Your task to perform on an android device: add a contact Image 0: 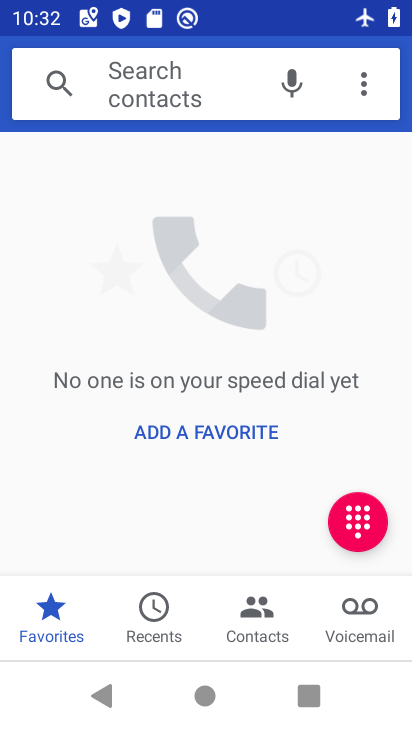
Step 0: press home button
Your task to perform on an android device: add a contact Image 1: 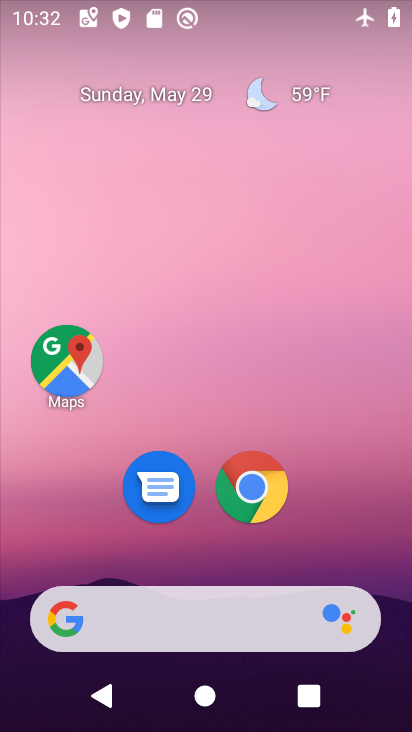
Step 1: drag from (384, 709) to (329, 217)
Your task to perform on an android device: add a contact Image 2: 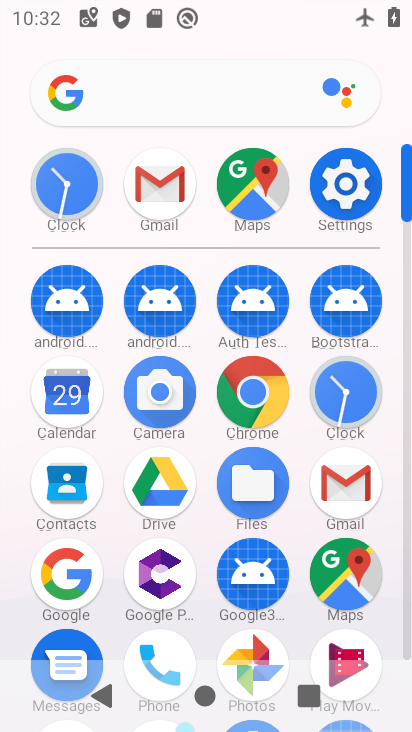
Step 2: click (60, 478)
Your task to perform on an android device: add a contact Image 3: 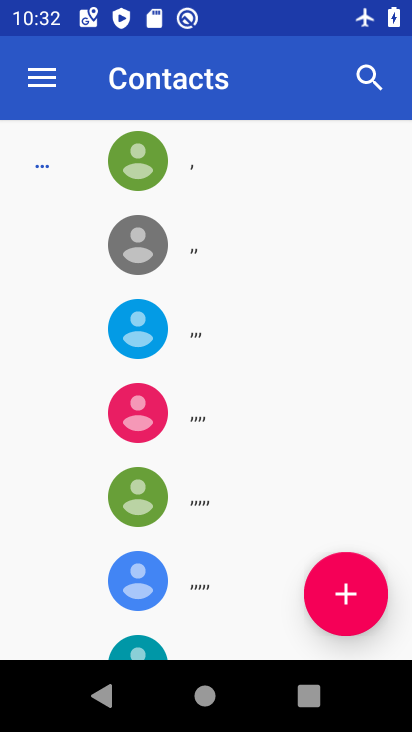
Step 3: click (335, 597)
Your task to perform on an android device: add a contact Image 4: 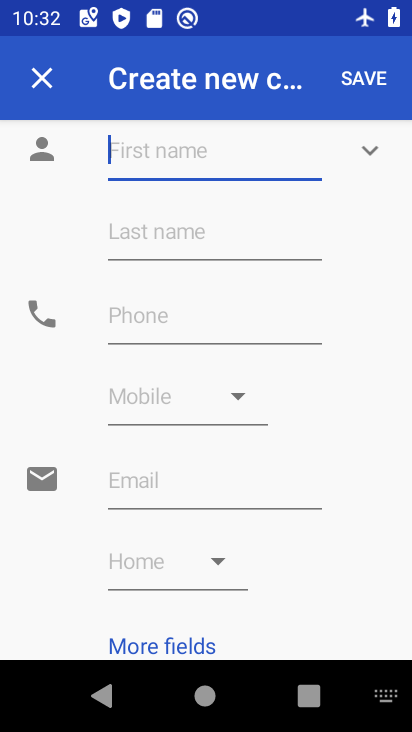
Step 4: type "ffjfkf"
Your task to perform on an android device: add a contact Image 5: 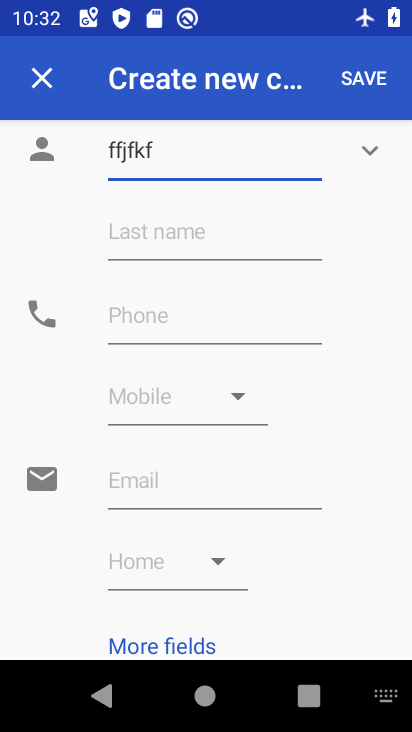
Step 5: click (193, 229)
Your task to perform on an android device: add a contact Image 6: 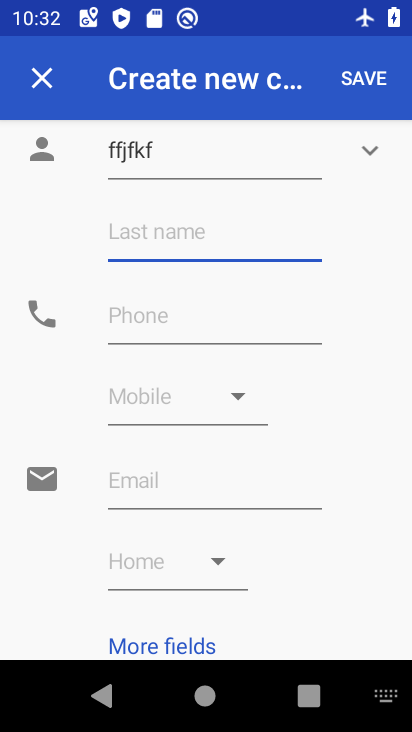
Step 6: type "ycfcghcj"
Your task to perform on an android device: add a contact Image 7: 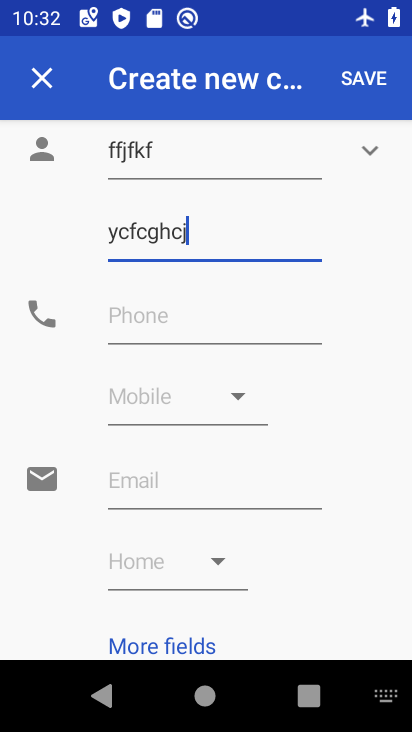
Step 7: click (136, 317)
Your task to perform on an android device: add a contact Image 8: 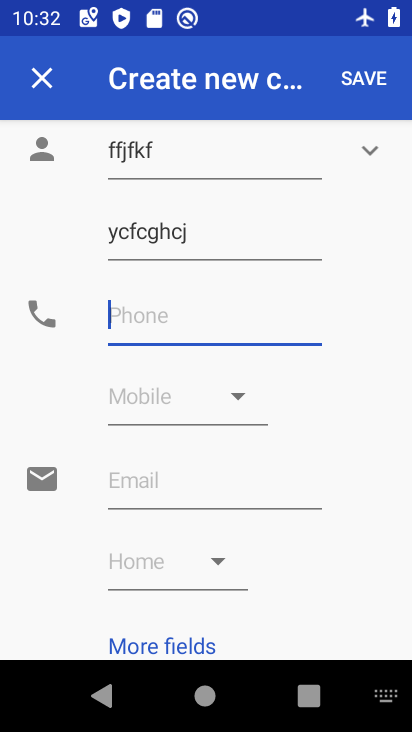
Step 8: type "476474784847"
Your task to perform on an android device: add a contact Image 9: 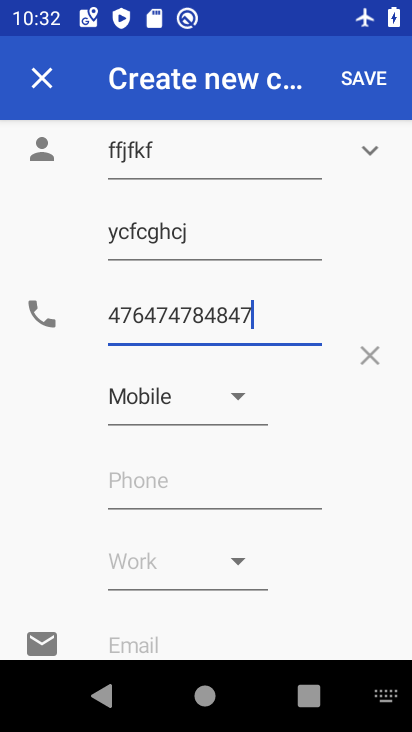
Step 9: click (356, 78)
Your task to perform on an android device: add a contact Image 10: 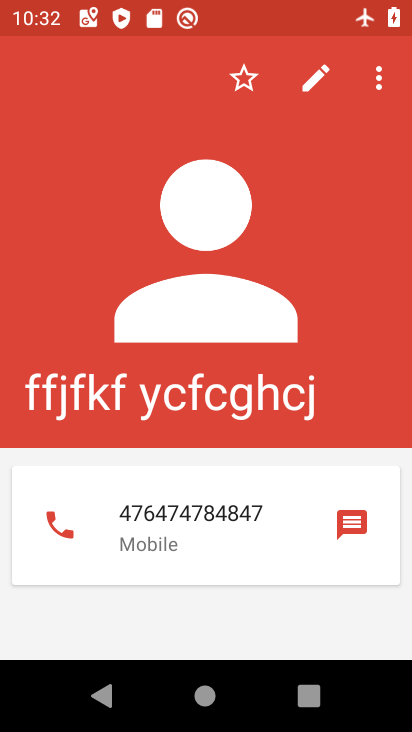
Step 10: task complete